Your task to perform on an android device: add a contact in the contacts app Image 0: 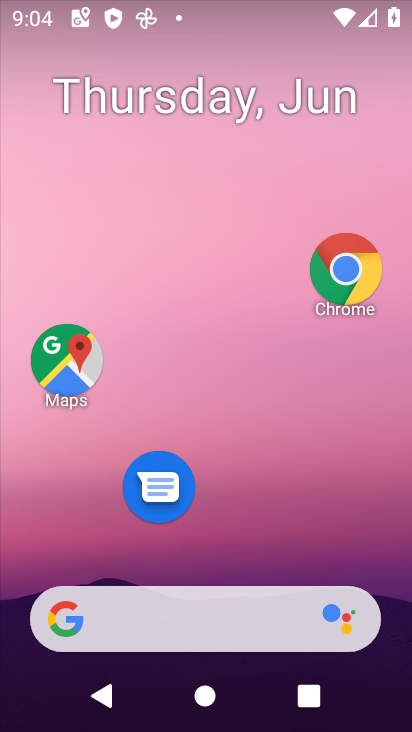
Step 0: click (387, 10)
Your task to perform on an android device: add a contact in the contacts app Image 1: 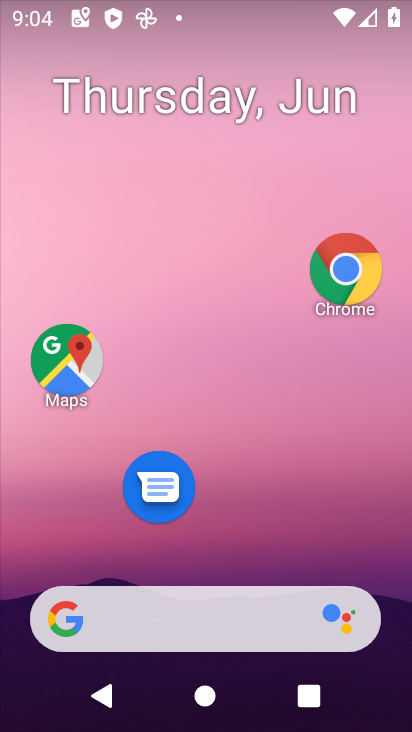
Step 1: drag from (208, 532) to (213, 3)
Your task to perform on an android device: add a contact in the contacts app Image 2: 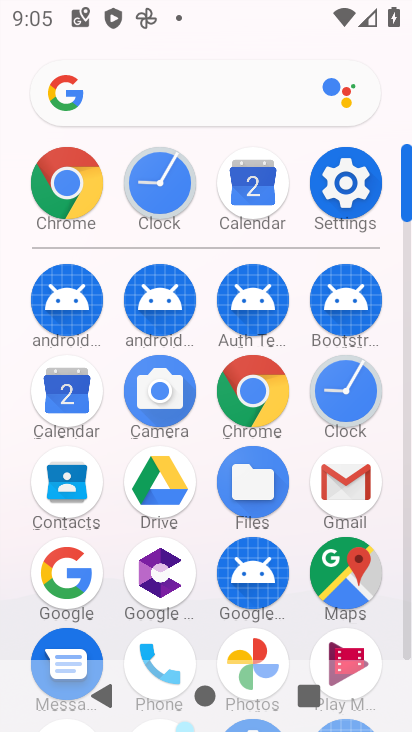
Step 2: click (66, 482)
Your task to perform on an android device: add a contact in the contacts app Image 3: 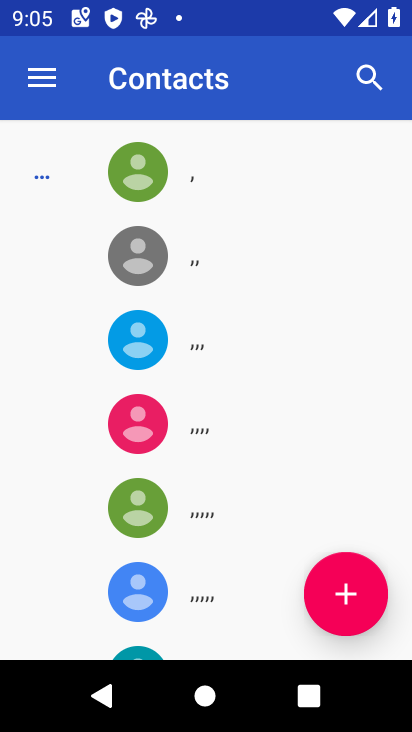
Step 3: click (341, 583)
Your task to perform on an android device: add a contact in the contacts app Image 4: 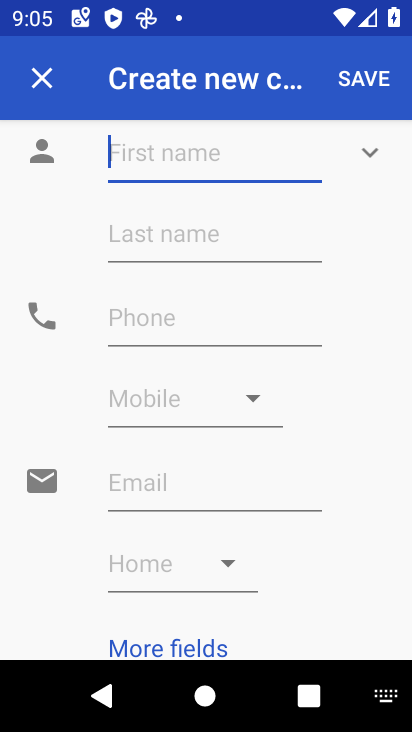
Step 4: type "nbgv"
Your task to perform on an android device: add a contact in the contacts app Image 5: 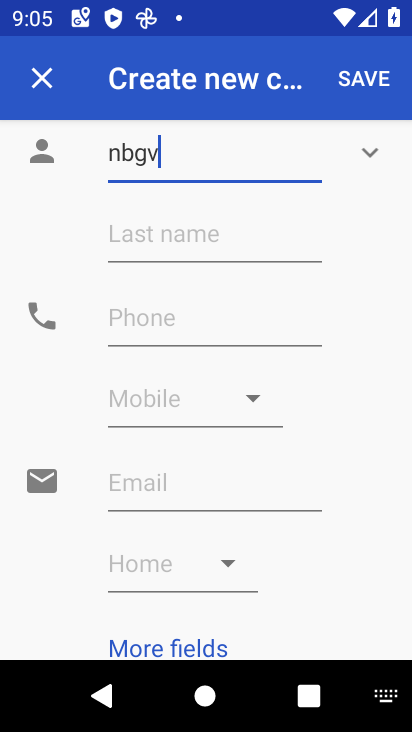
Step 5: click (365, 94)
Your task to perform on an android device: add a contact in the contacts app Image 6: 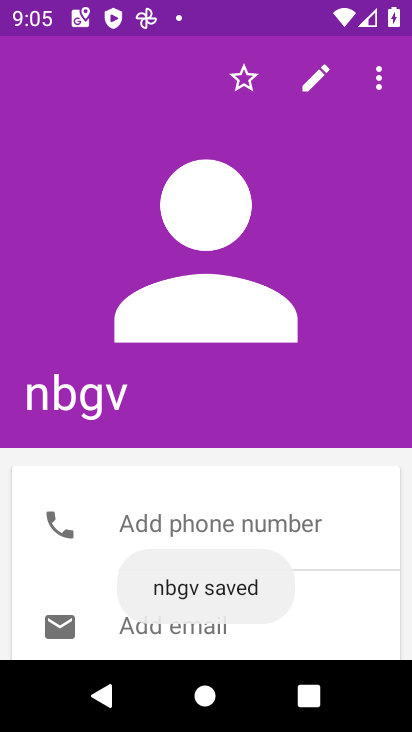
Step 6: task complete